Your task to perform on an android device: Go to sound settings Image 0: 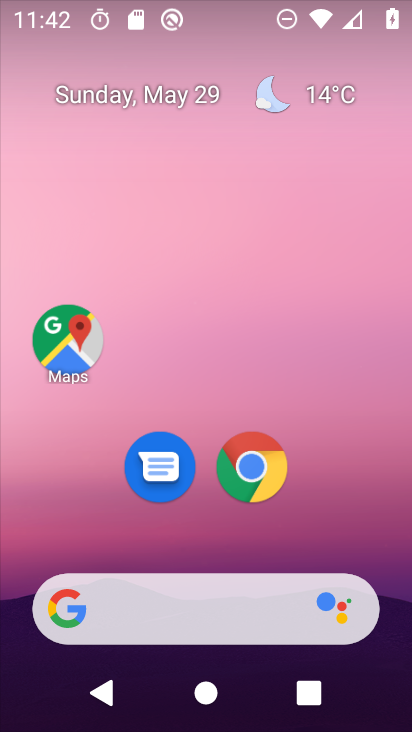
Step 0: drag from (193, 490) to (190, 176)
Your task to perform on an android device: Go to sound settings Image 1: 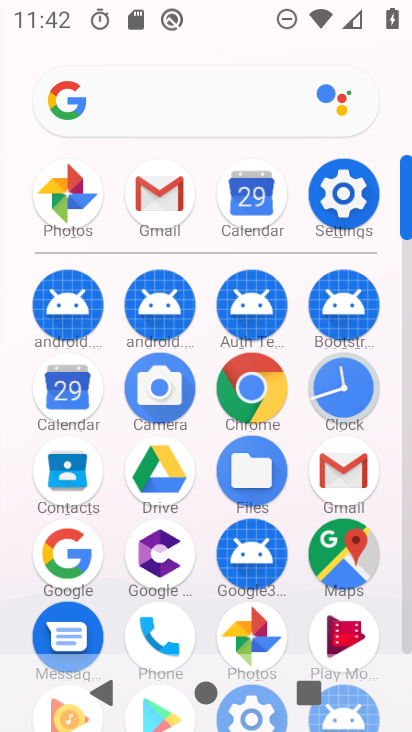
Step 1: click (329, 209)
Your task to perform on an android device: Go to sound settings Image 2: 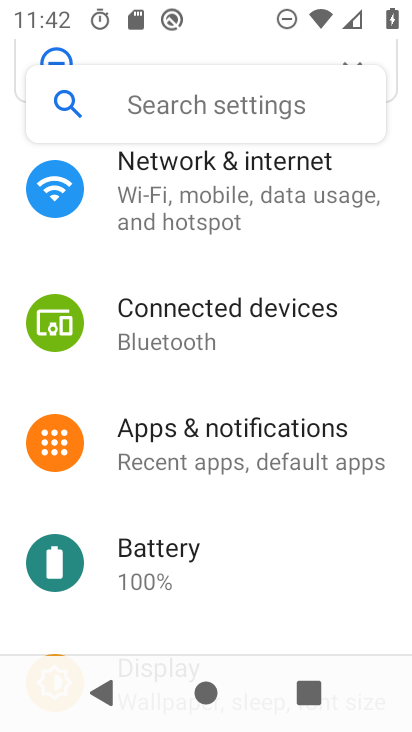
Step 2: drag from (203, 564) to (205, 233)
Your task to perform on an android device: Go to sound settings Image 3: 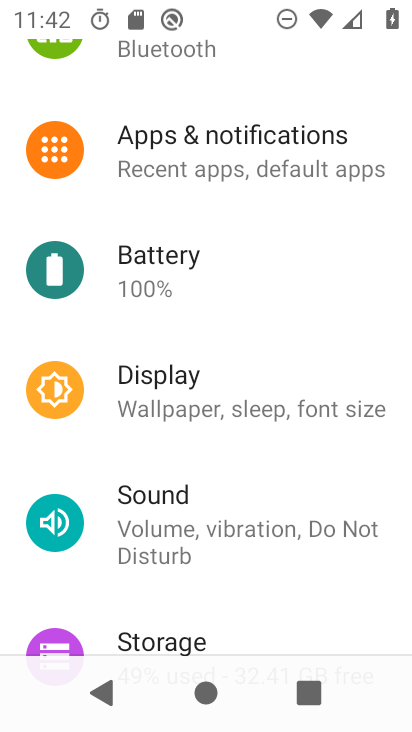
Step 3: click (220, 513)
Your task to perform on an android device: Go to sound settings Image 4: 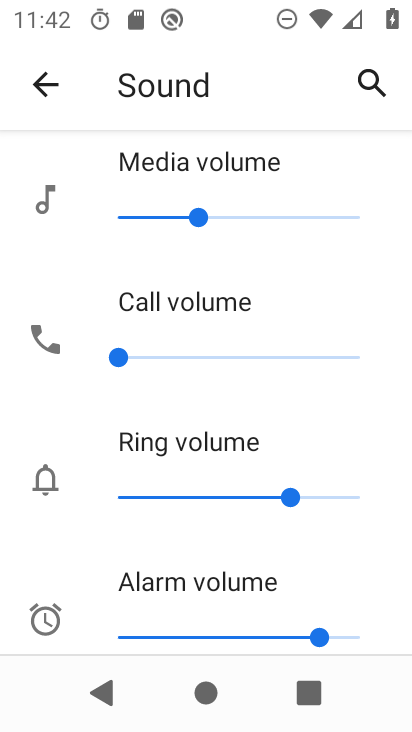
Step 4: task complete